Your task to perform on an android device: When is my next meeting? Image 0: 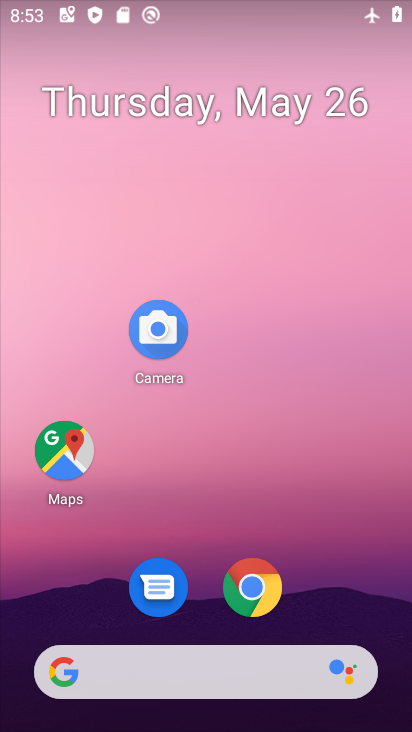
Step 0: drag from (200, 539) to (210, 214)
Your task to perform on an android device: When is my next meeting? Image 1: 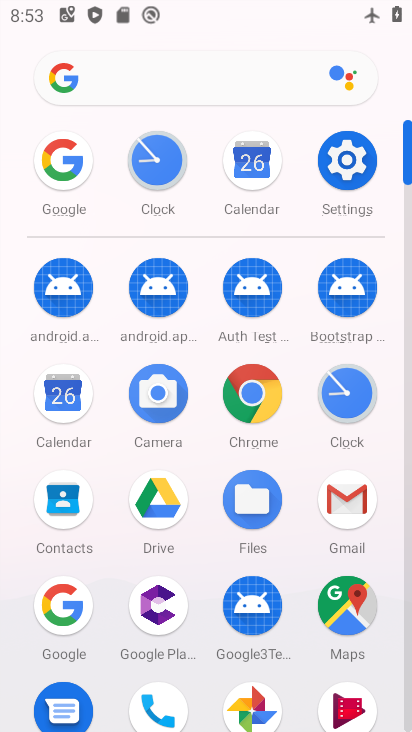
Step 1: click (248, 175)
Your task to perform on an android device: When is my next meeting? Image 2: 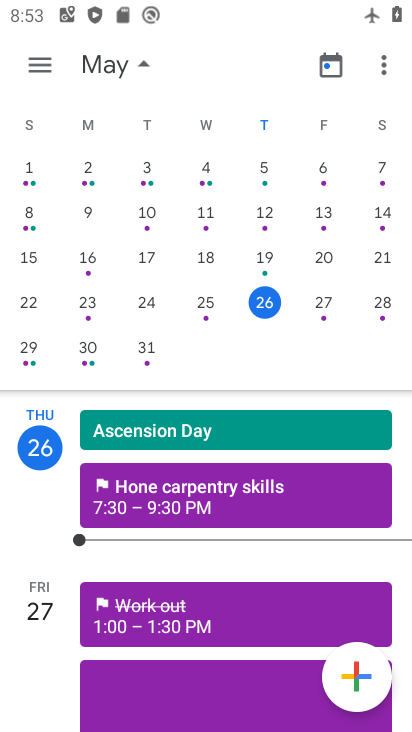
Step 2: task complete